Your task to perform on an android device: change alarm snooze length Image 0: 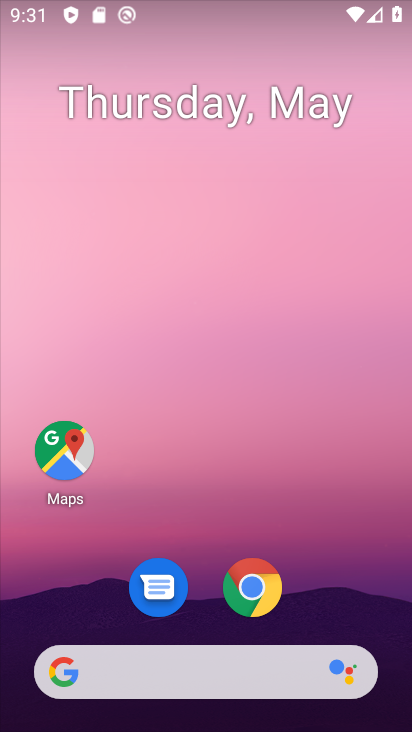
Step 0: drag from (357, 569) to (278, 9)
Your task to perform on an android device: change alarm snooze length Image 1: 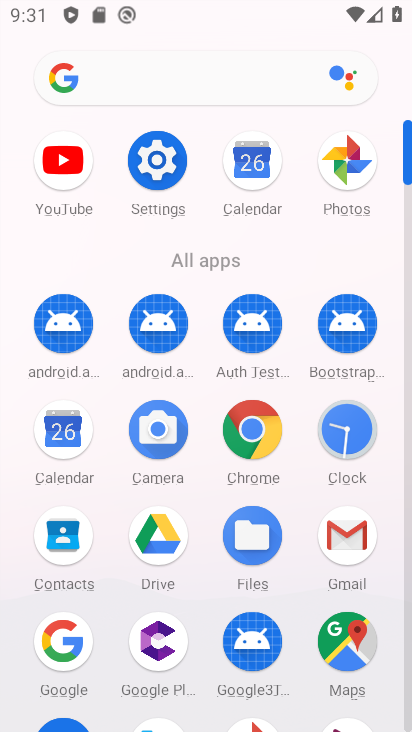
Step 1: click (357, 441)
Your task to perform on an android device: change alarm snooze length Image 2: 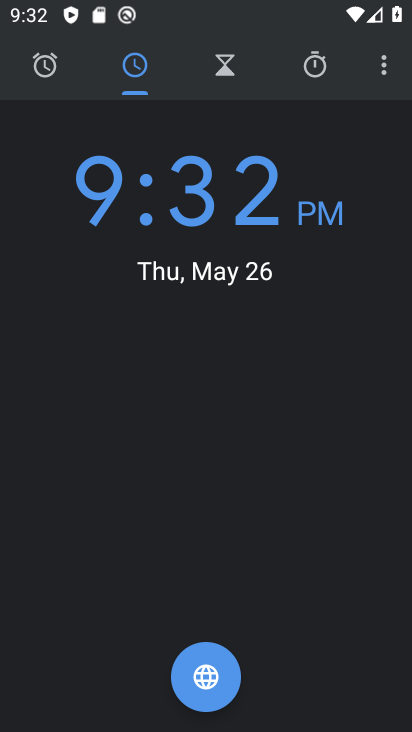
Step 2: click (385, 74)
Your task to perform on an android device: change alarm snooze length Image 3: 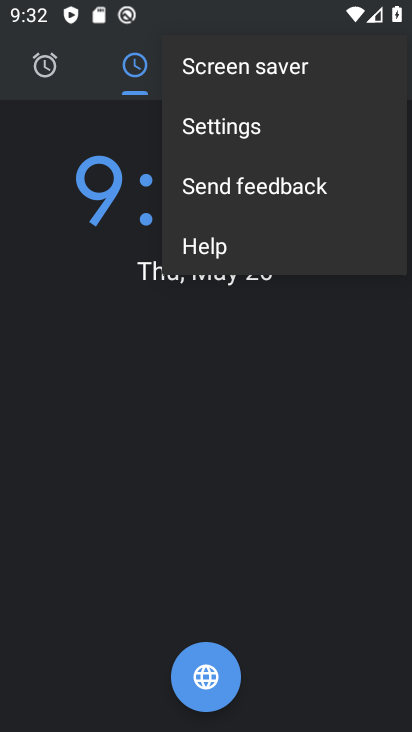
Step 3: click (279, 118)
Your task to perform on an android device: change alarm snooze length Image 4: 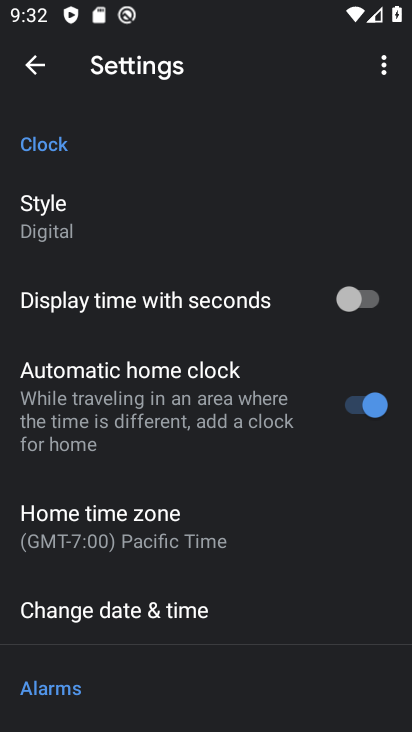
Step 4: drag from (236, 657) to (253, 120)
Your task to perform on an android device: change alarm snooze length Image 5: 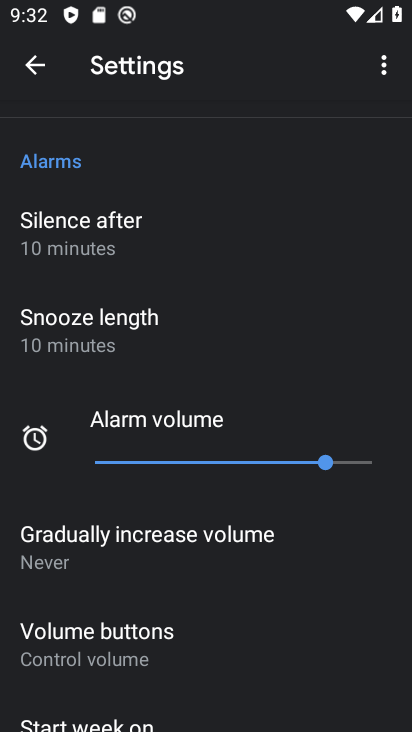
Step 5: drag from (207, 672) to (157, 289)
Your task to perform on an android device: change alarm snooze length Image 6: 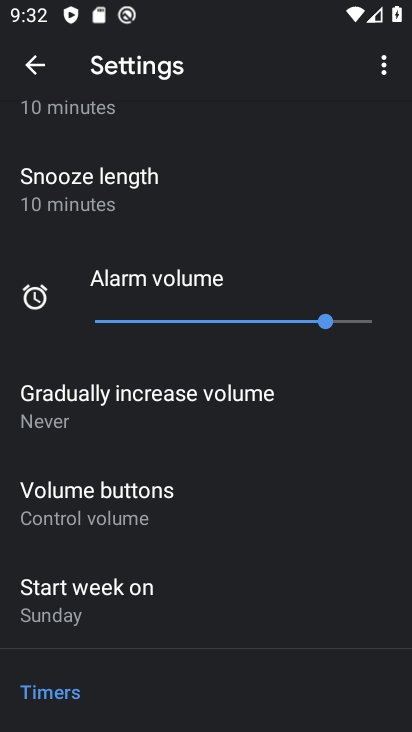
Step 6: click (139, 184)
Your task to perform on an android device: change alarm snooze length Image 7: 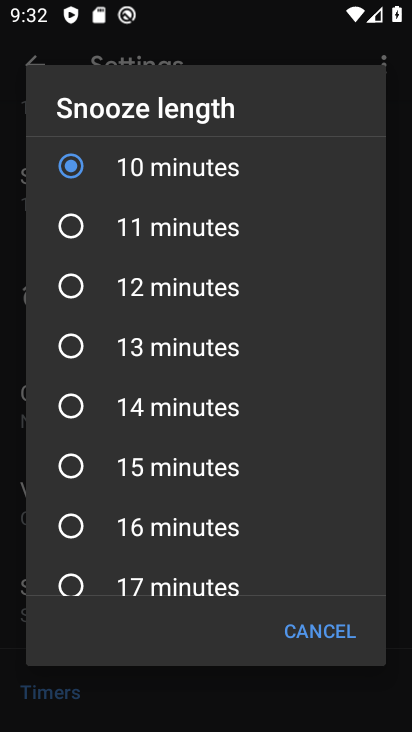
Step 7: click (185, 290)
Your task to perform on an android device: change alarm snooze length Image 8: 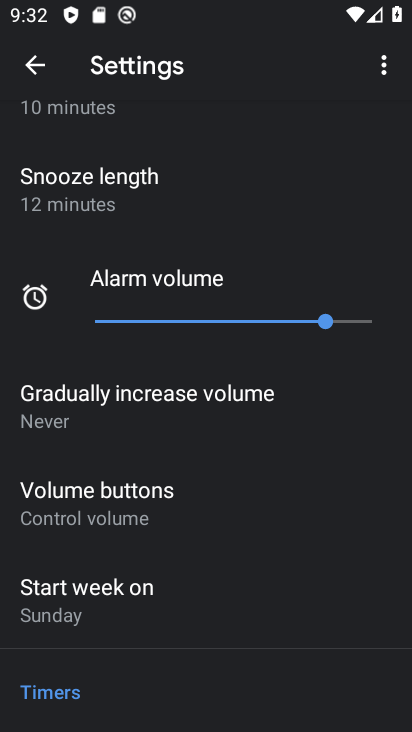
Step 8: task complete